Your task to perform on an android device: Search for seafood restaurants on Google Maps Image 0: 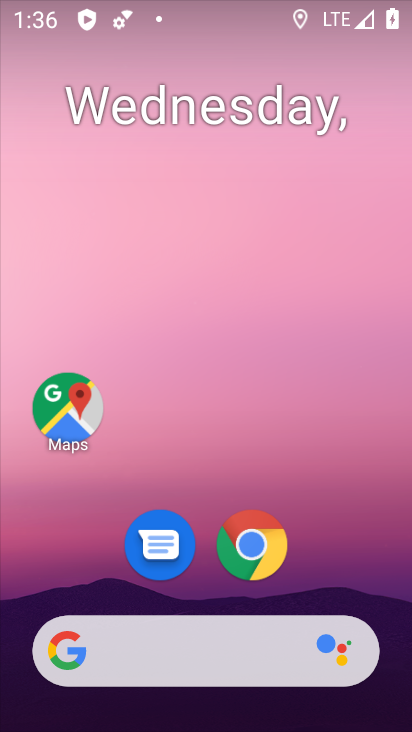
Step 0: drag from (313, 553) to (333, 142)
Your task to perform on an android device: Search for seafood restaurants on Google Maps Image 1: 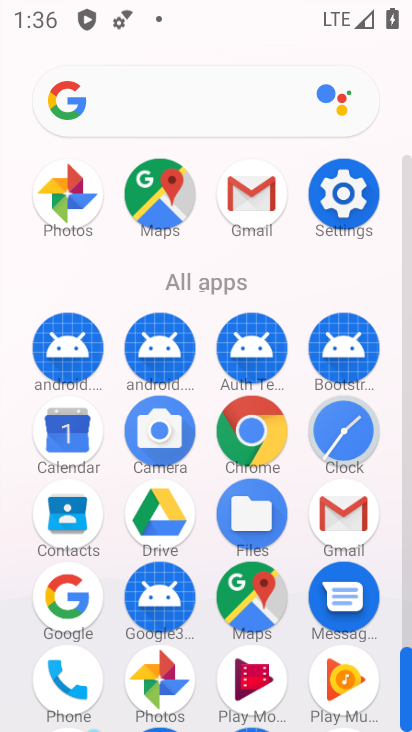
Step 1: click (268, 593)
Your task to perform on an android device: Search for seafood restaurants on Google Maps Image 2: 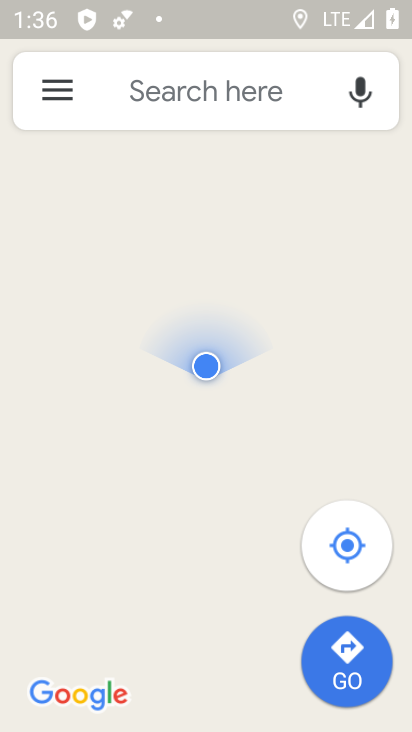
Step 2: click (198, 83)
Your task to perform on an android device: Search for seafood restaurants on Google Maps Image 3: 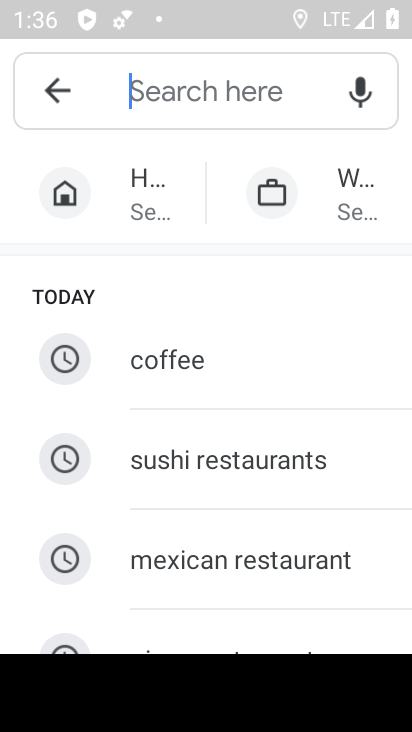
Step 3: type "seafood restaurants"
Your task to perform on an android device: Search for seafood restaurants on Google Maps Image 4: 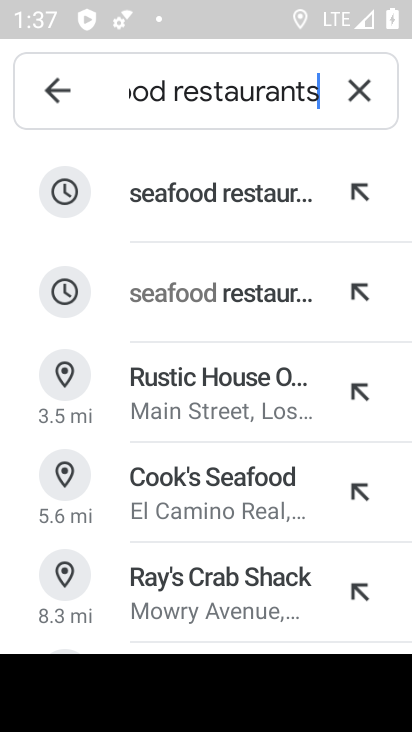
Step 4: press enter
Your task to perform on an android device: Search for seafood restaurants on Google Maps Image 5: 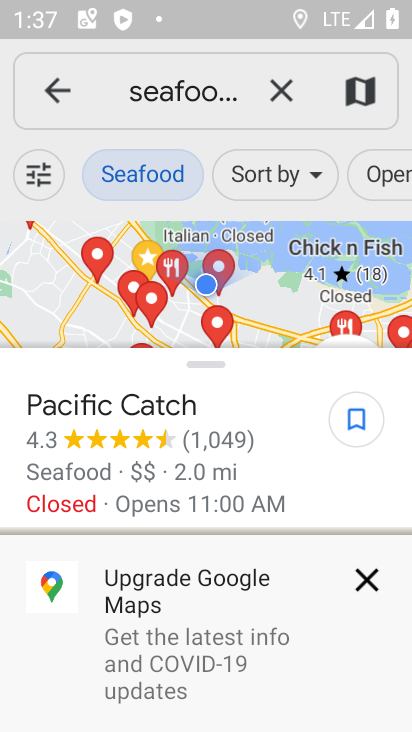
Step 5: task complete